Your task to perform on an android device: move a message to another label in the gmail app Image 0: 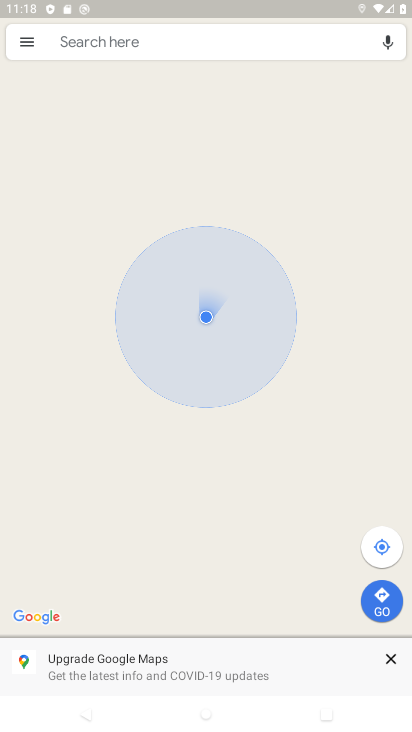
Step 0: press home button
Your task to perform on an android device: move a message to another label in the gmail app Image 1: 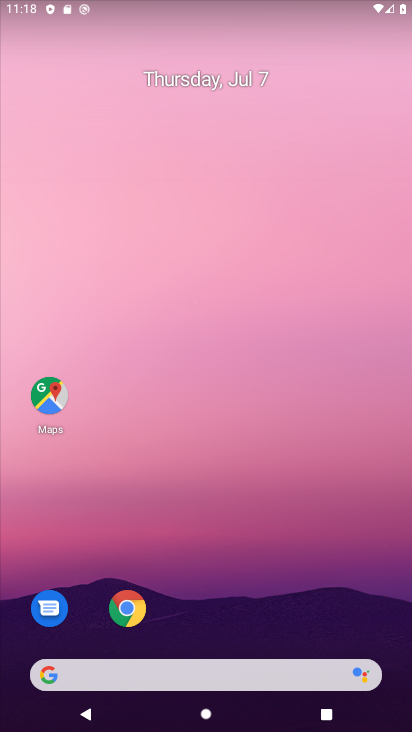
Step 1: drag from (222, 629) to (233, 82)
Your task to perform on an android device: move a message to another label in the gmail app Image 2: 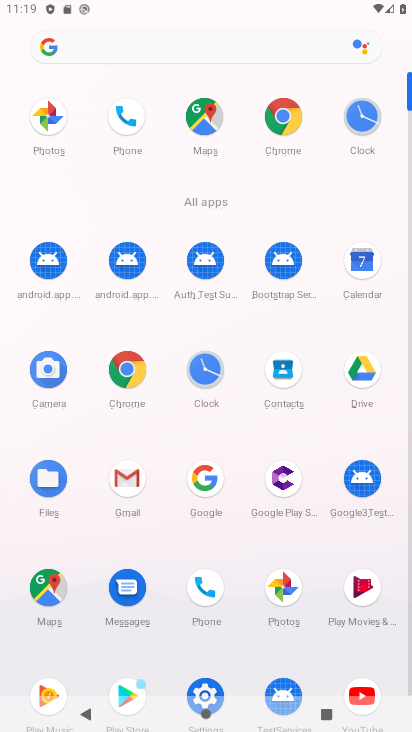
Step 2: click (132, 477)
Your task to perform on an android device: move a message to another label in the gmail app Image 3: 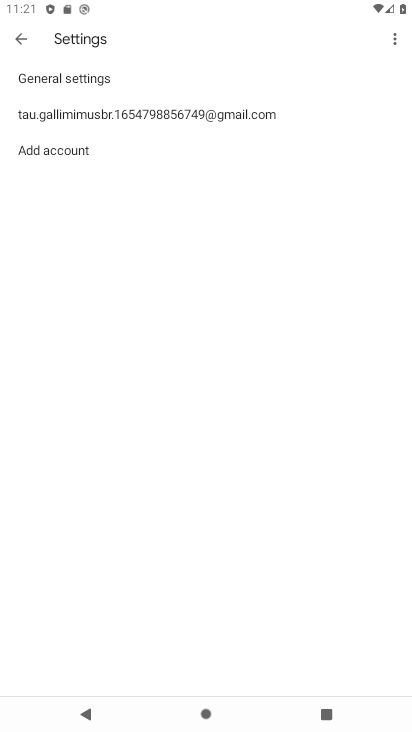
Step 3: click (29, 52)
Your task to perform on an android device: move a message to another label in the gmail app Image 4: 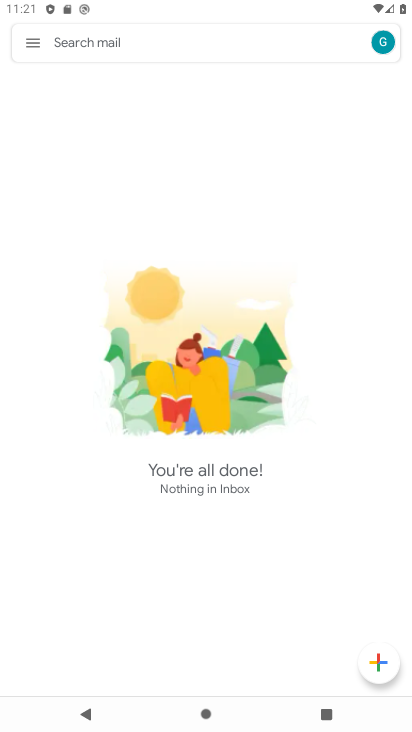
Step 4: click (43, 46)
Your task to perform on an android device: move a message to another label in the gmail app Image 5: 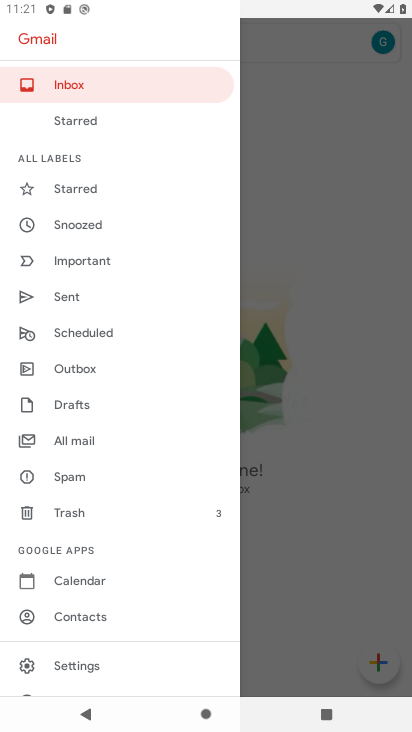
Step 5: task complete